Your task to perform on an android device: Turn on the flashlight Image 0: 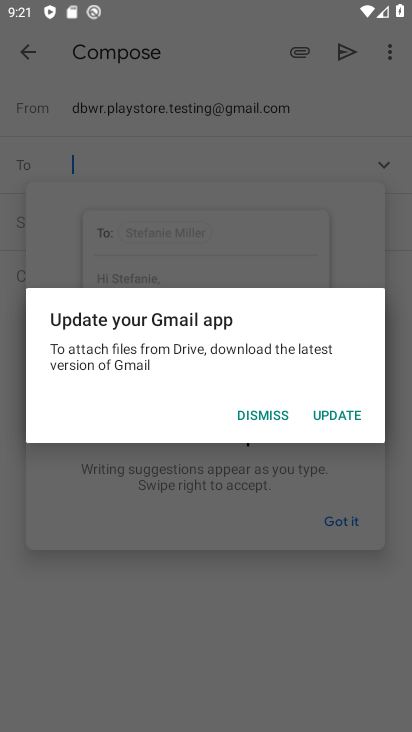
Step 0: press home button
Your task to perform on an android device: Turn on the flashlight Image 1: 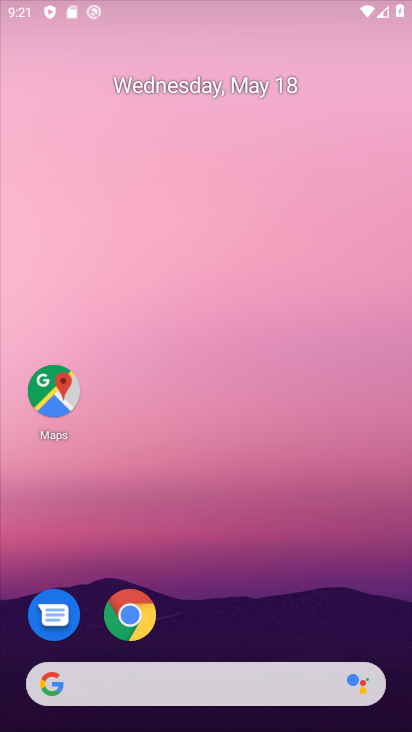
Step 1: drag from (237, 574) to (287, 44)
Your task to perform on an android device: Turn on the flashlight Image 2: 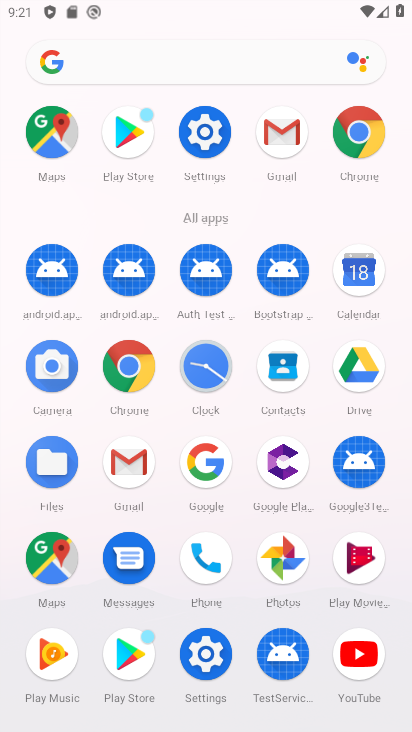
Step 2: click (202, 648)
Your task to perform on an android device: Turn on the flashlight Image 3: 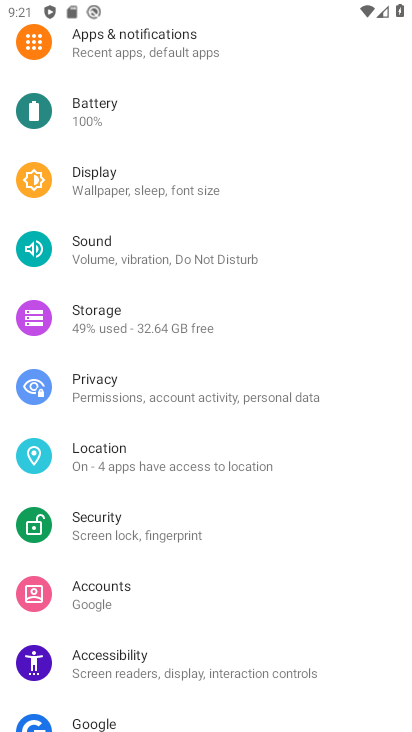
Step 3: drag from (206, 111) to (240, 590)
Your task to perform on an android device: Turn on the flashlight Image 4: 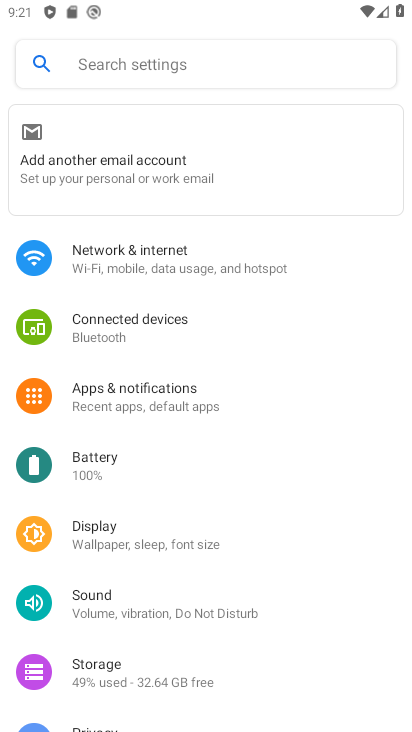
Step 4: click (163, 70)
Your task to perform on an android device: Turn on the flashlight Image 5: 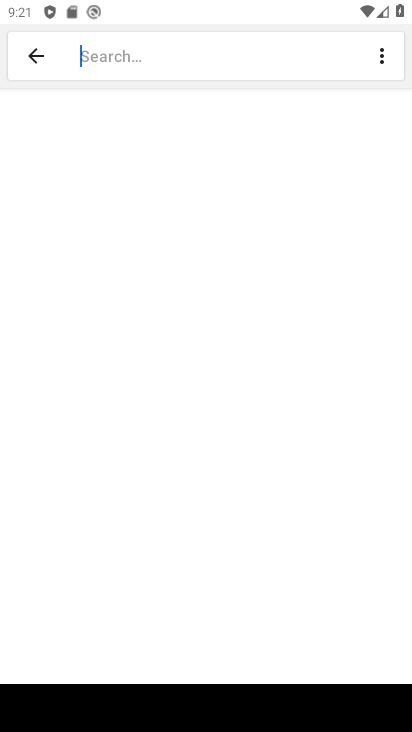
Step 5: type "flash"
Your task to perform on an android device: Turn on the flashlight Image 6: 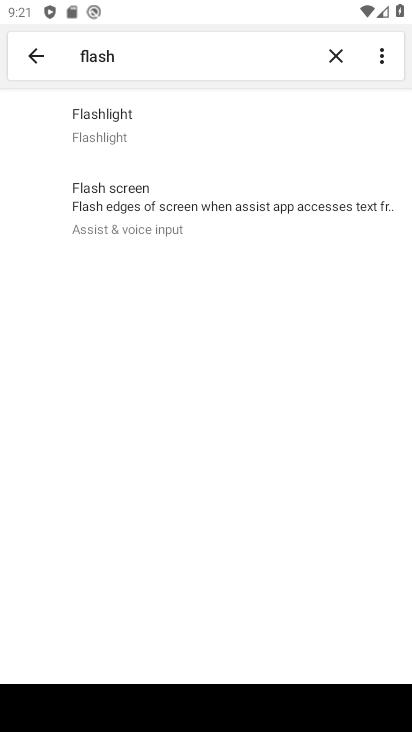
Step 6: task complete